Your task to perform on an android device: add a contact in the contacts app Image 0: 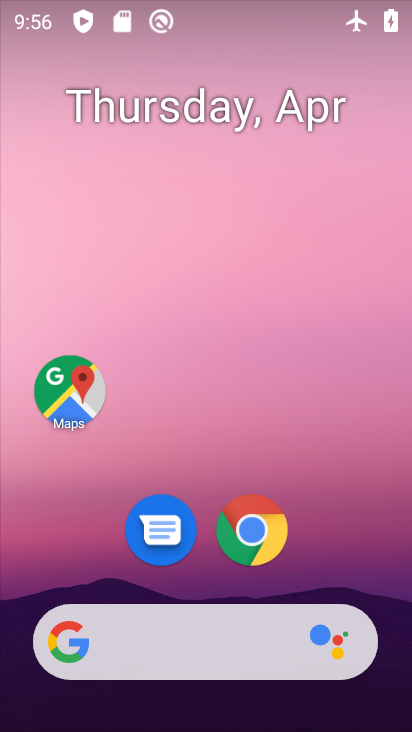
Step 0: drag from (212, 582) to (212, 187)
Your task to perform on an android device: add a contact in the contacts app Image 1: 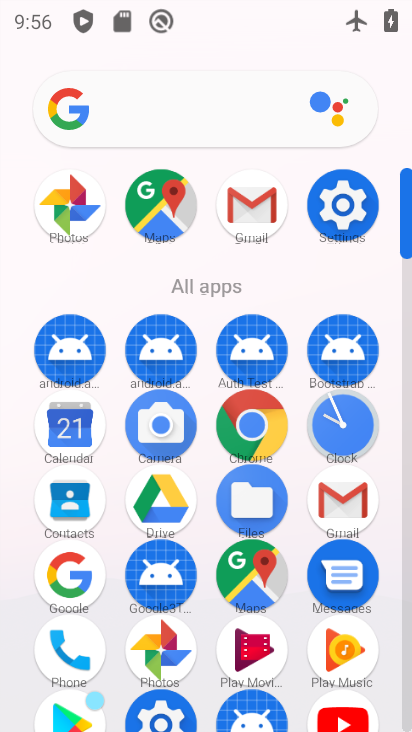
Step 1: click (66, 501)
Your task to perform on an android device: add a contact in the contacts app Image 2: 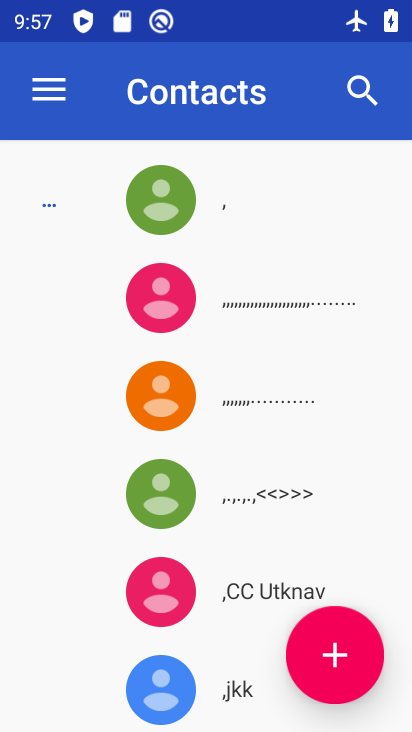
Step 2: click (329, 659)
Your task to perform on an android device: add a contact in the contacts app Image 3: 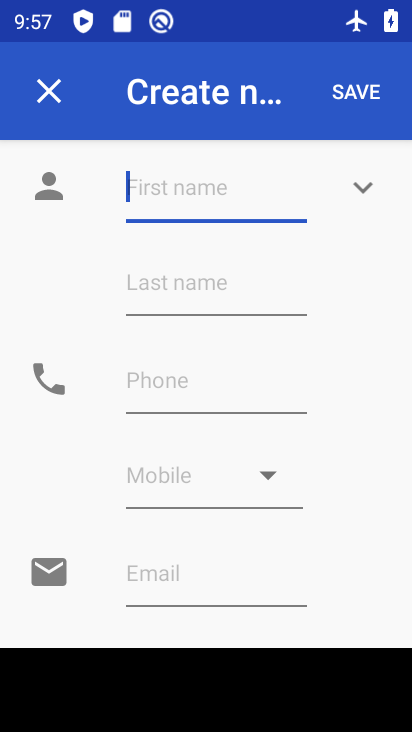
Step 3: type "verma"
Your task to perform on an android device: add a contact in the contacts app Image 4: 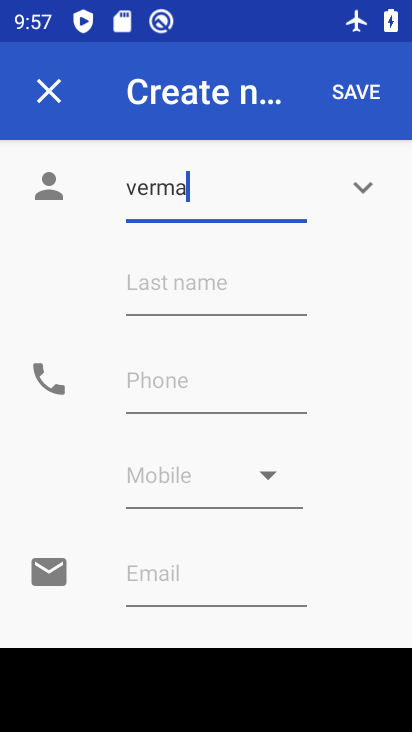
Step 4: click (164, 391)
Your task to perform on an android device: add a contact in the contacts app Image 5: 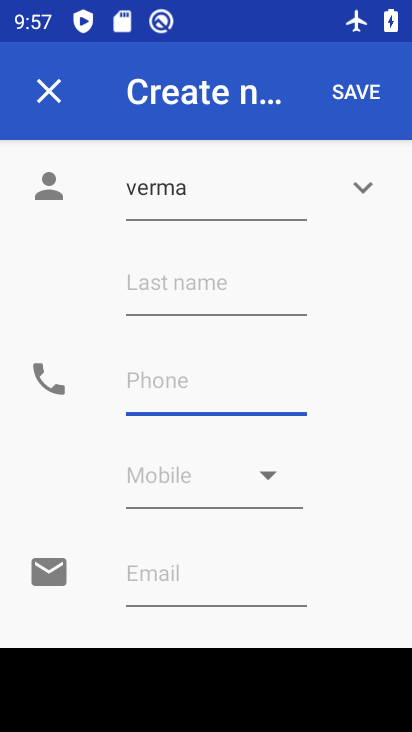
Step 5: type "876767"
Your task to perform on an android device: add a contact in the contacts app Image 6: 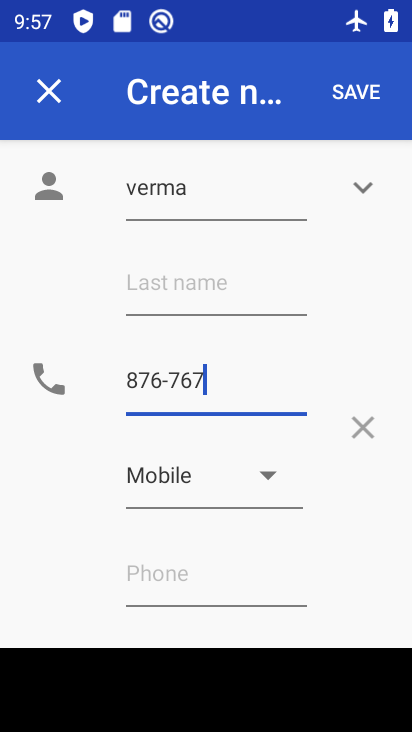
Step 6: click (361, 96)
Your task to perform on an android device: add a contact in the contacts app Image 7: 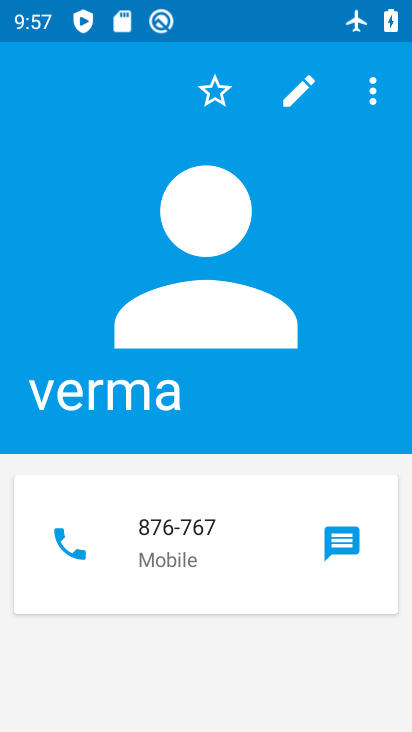
Step 7: task complete